Your task to perform on an android device: turn off airplane mode Image 0: 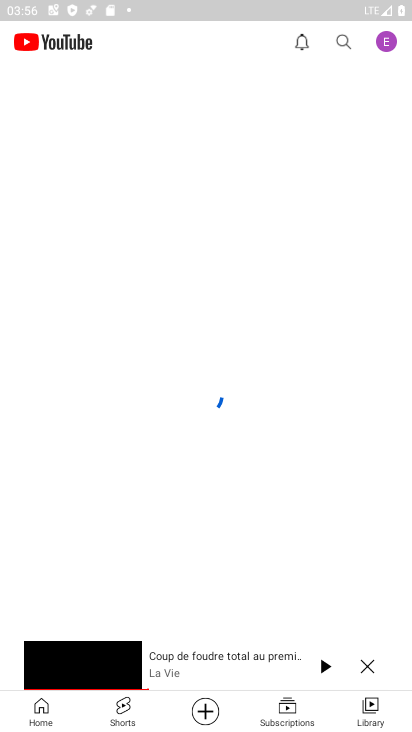
Step 0: click (293, 91)
Your task to perform on an android device: turn off airplane mode Image 1: 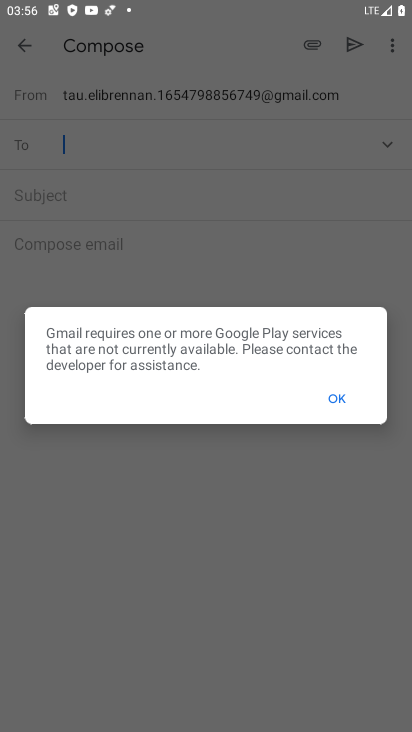
Step 1: task complete